Your task to perform on an android device: Do I have any events tomorrow? Image 0: 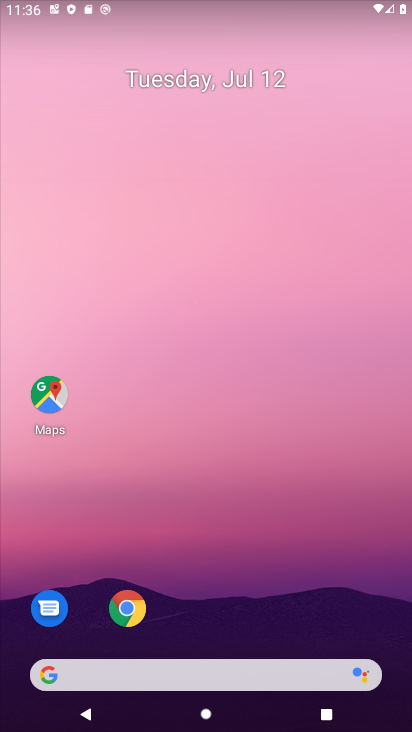
Step 0: drag from (248, 707) to (277, 125)
Your task to perform on an android device: Do I have any events tomorrow? Image 1: 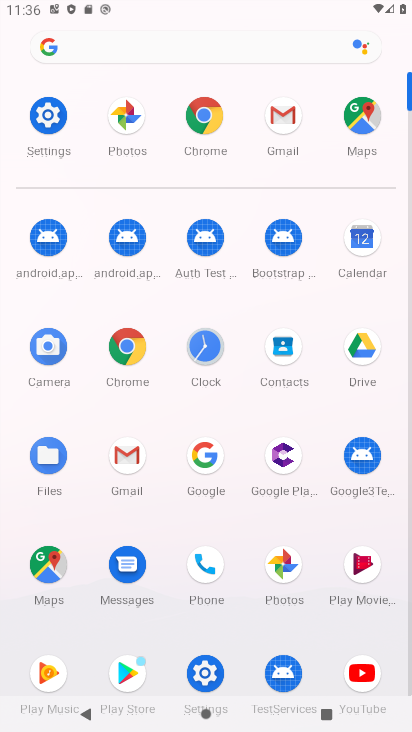
Step 1: click (364, 253)
Your task to perform on an android device: Do I have any events tomorrow? Image 2: 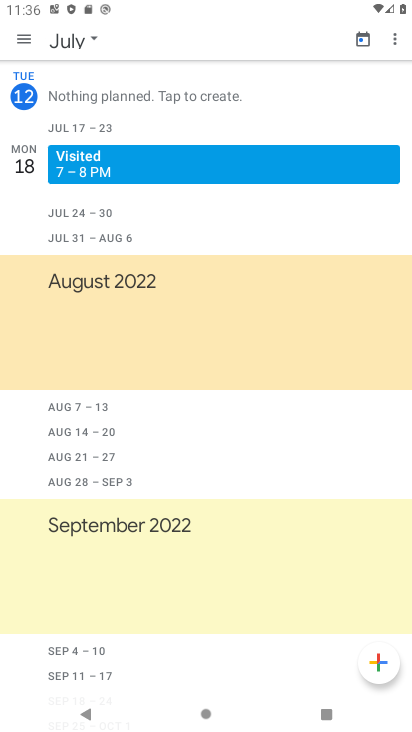
Step 2: click (90, 33)
Your task to perform on an android device: Do I have any events tomorrow? Image 3: 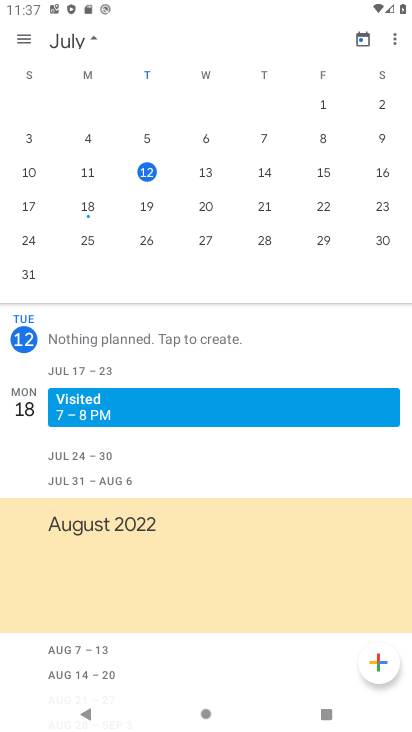
Step 3: click (206, 173)
Your task to perform on an android device: Do I have any events tomorrow? Image 4: 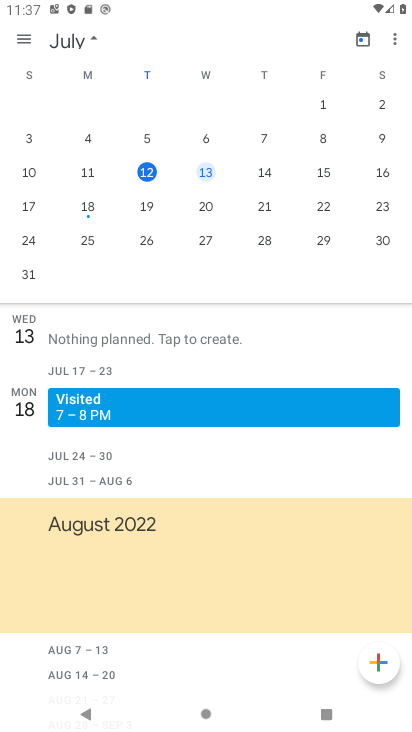
Step 4: click (209, 169)
Your task to perform on an android device: Do I have any events tomorrow? Image 5: 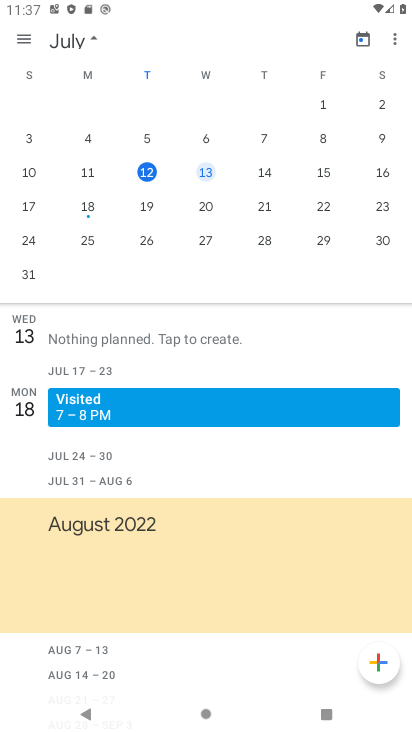
Step 5: click (27, 37)
Your task to perform on an android device: Do I have any events tomorrow? Image 6: 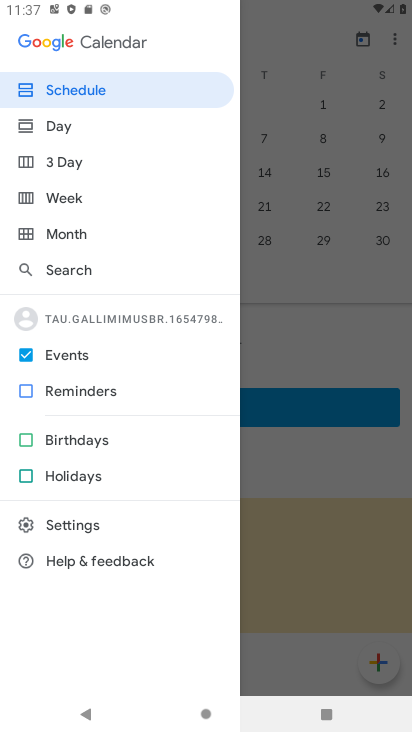
Step 6: click (271, 113)
Your task to perform on an android device: Do I have any events tomorrow? Image 7: 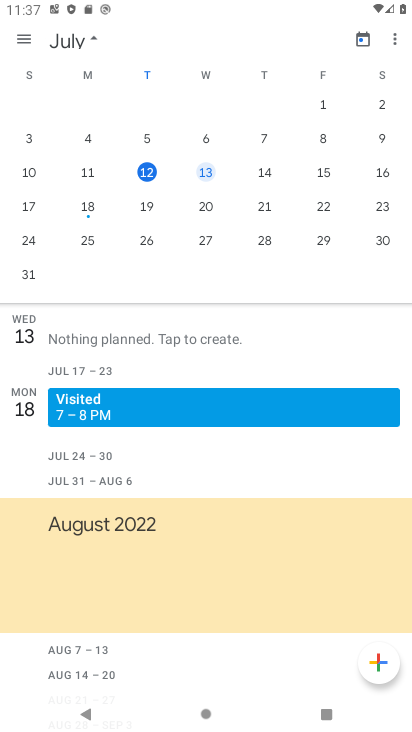
Step 7: click (205, 173)
Your task to perform on an android device: Do I have any events tomorrow? Image 8: 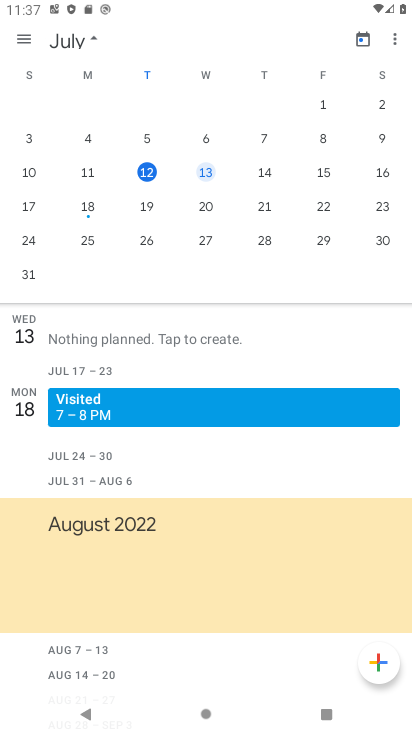
Step 8: click (39, 337)
Your task to perform on an android device: Do I have any events tomorrow? Image 9: 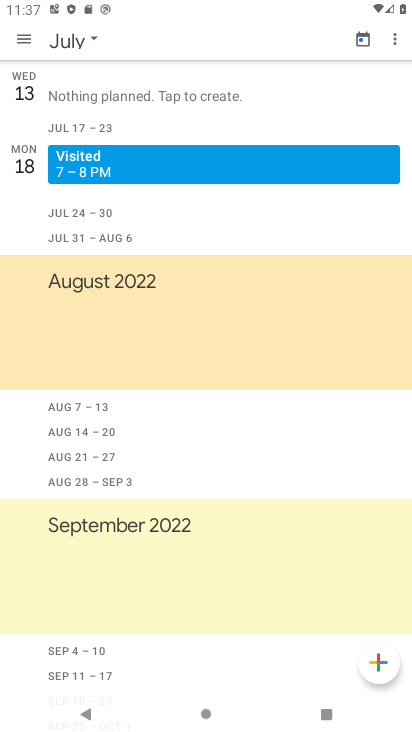
Step 9: task complete